Your task to perform on an android device: Turn off the flashlight Image 0: 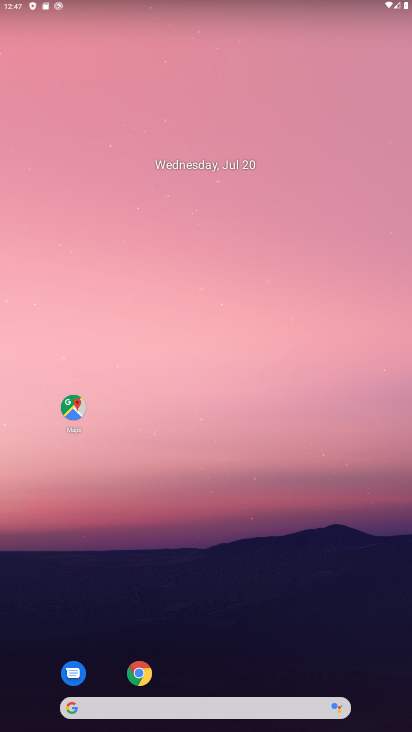
Step 0: drag from (178, 676) to (177, 105)
Your task to perform on an android device: Turn off the flashlight Image 1: 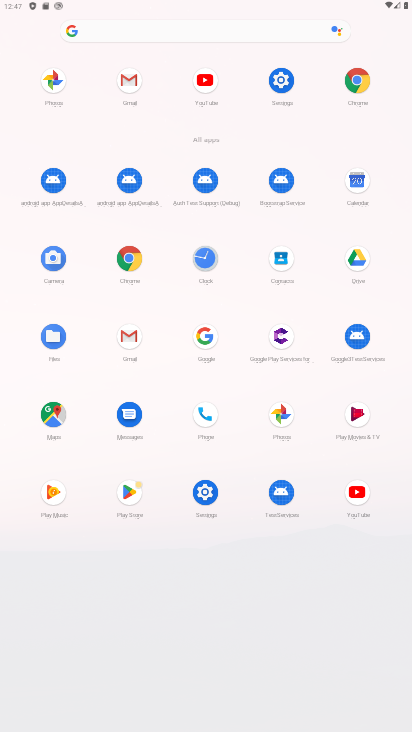
Step 1: click (286, 97)
Your task to perform on an android device: Turn off the flashlight Image 2: 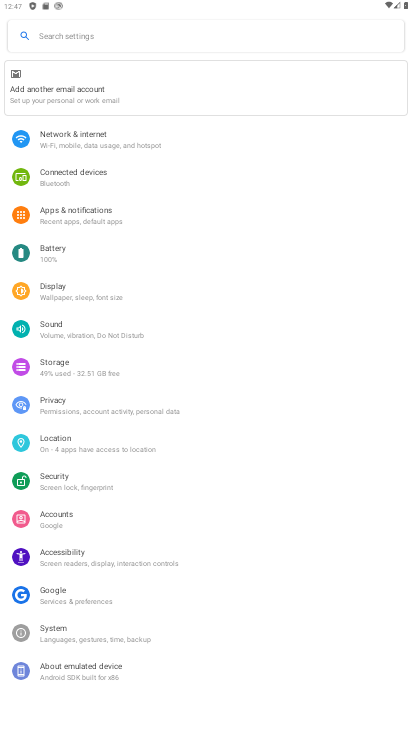
Step 2: task complete